Your task to perform on an android device: change keyboard looks Image 0: 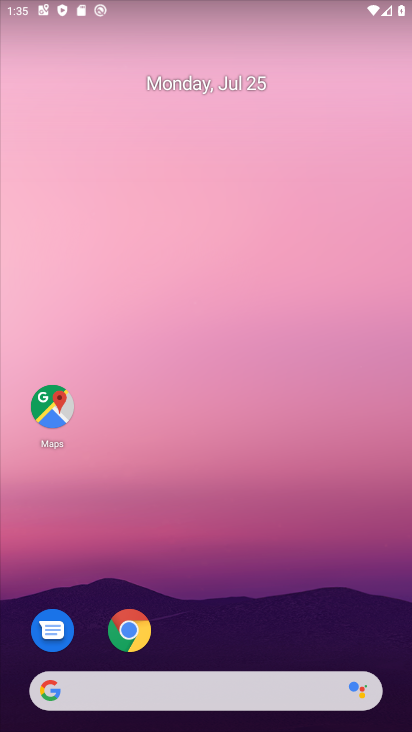
Step 0: drag from (275, 650) to (287, 148)
Your task to perform on an android device: change keyboard looks Image 1: 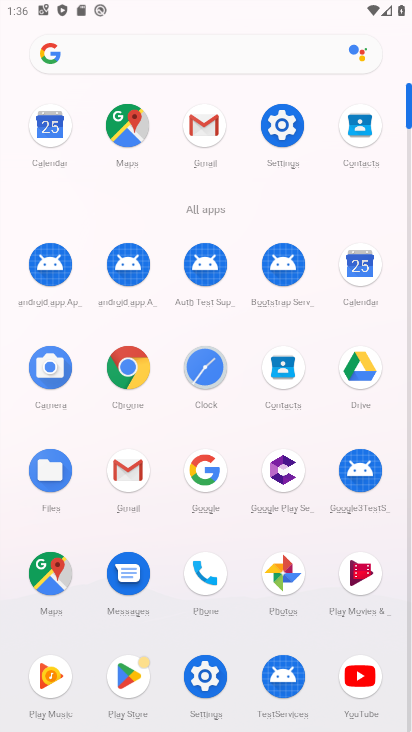
Step 1: click (284, 125)
Your task to perform on an android device: change keyboard looks Image 2: 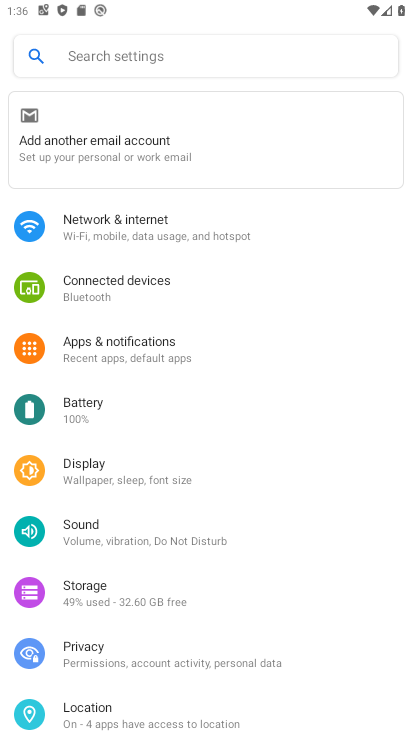
Step 2: task complete